Your task to perform on an android device: turn on wifi Image 0: 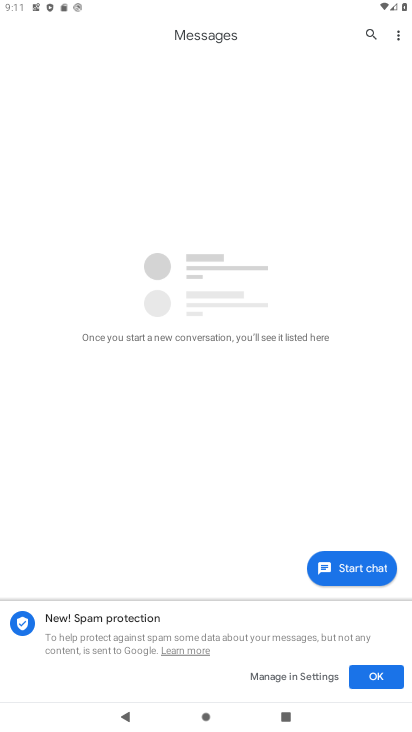
Step 0: drag from (234, 1) to (241, 498)
Your task to perform on an android device: turn on wifi Image 1: 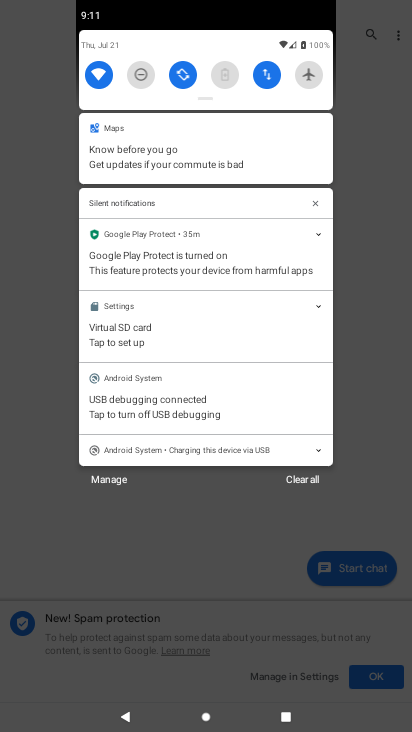
Step 1: task complete